Your task to perform on an android device: toggle location history Image 0: 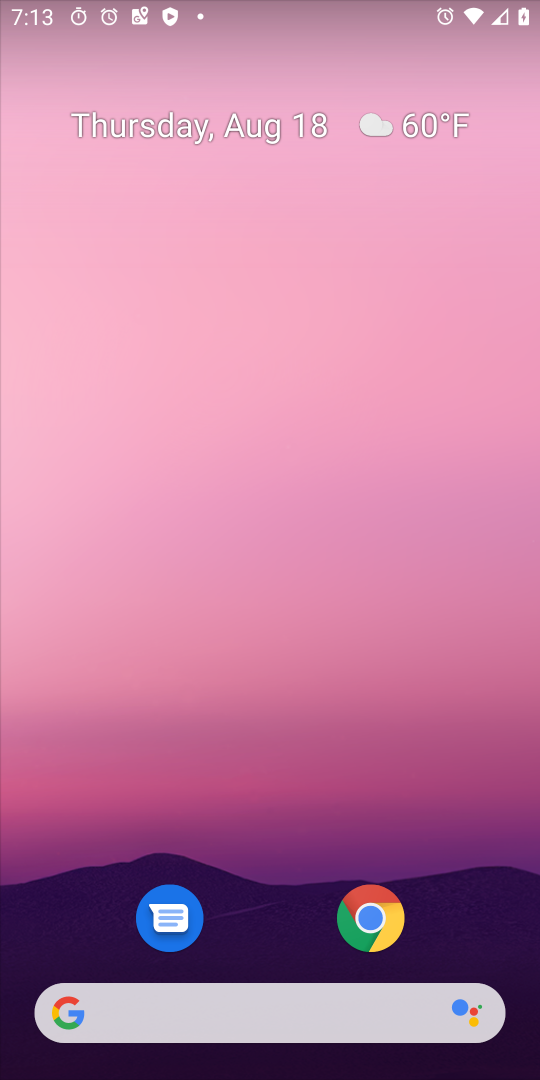
Step 0: drag from (328, 953) to (397, 58)
Your task to perform on an android device: toggle location history Image 1: 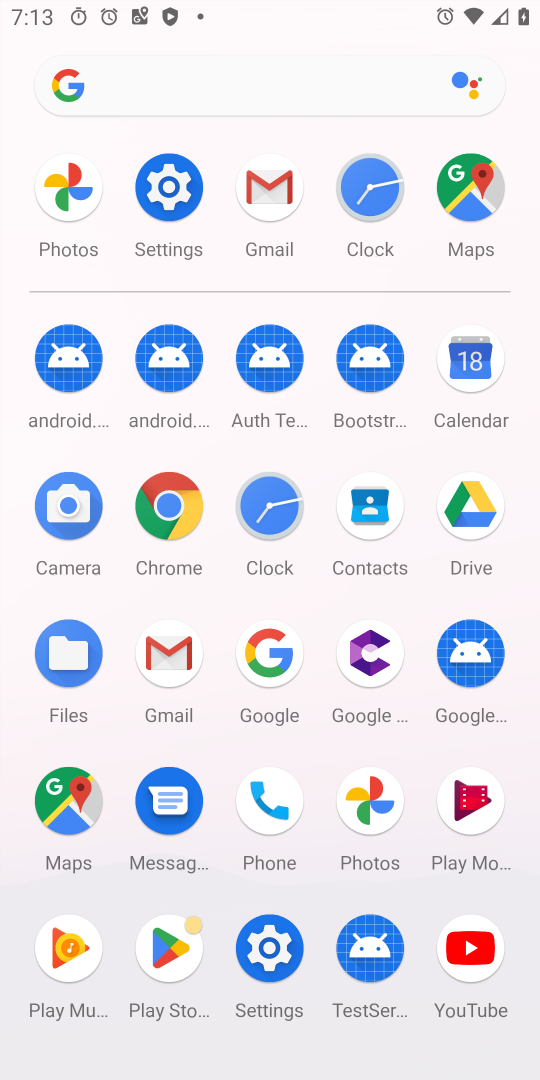
Step 1: click (155, 180)
Your task to perform on an android device: toggle location history Image 2: 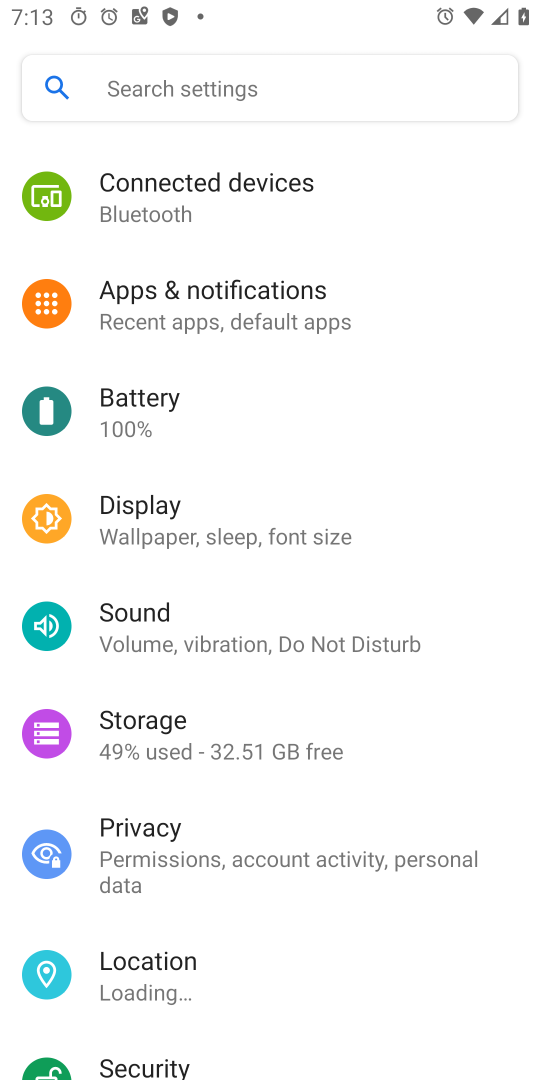
Step 2: click (142, 961)
Your task to perform on an android device: toggle location history Image 3: 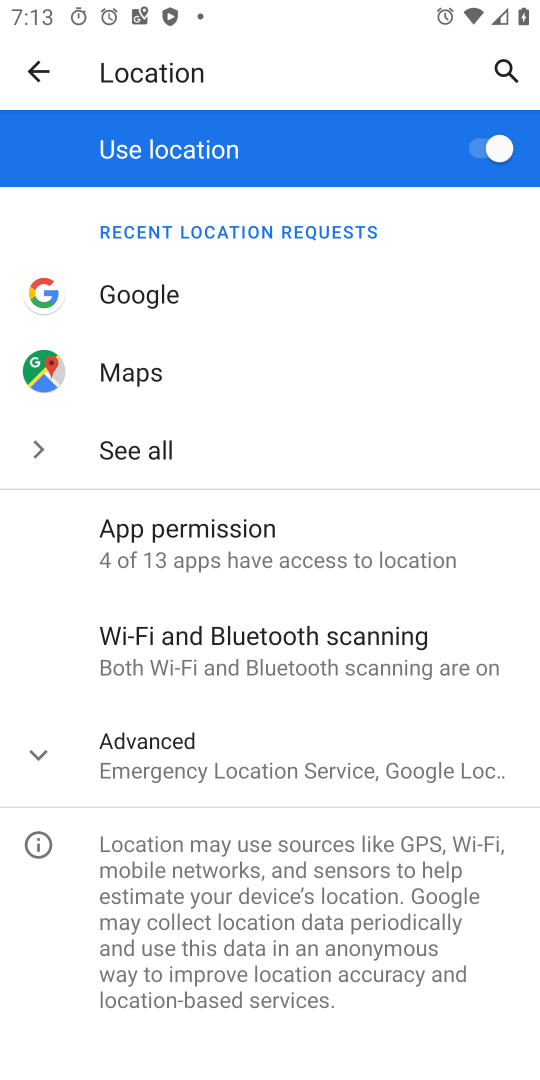
Step 3: click (160, 759)
Your task to perform on an android device: toggle location history Image 4: 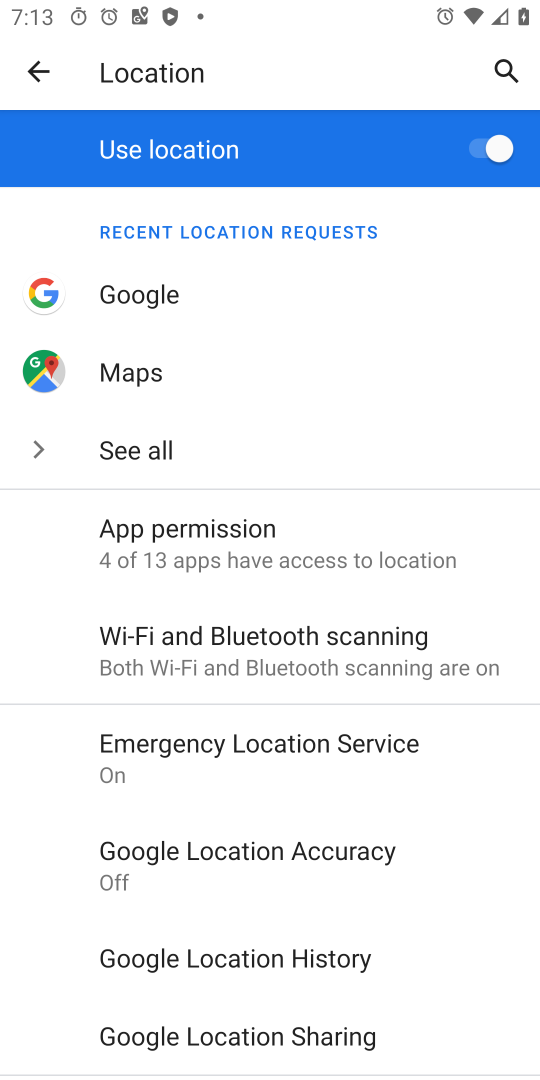
Step 4: click (268, 963)
Your task to perform on an android device: toggle location history Image 5: 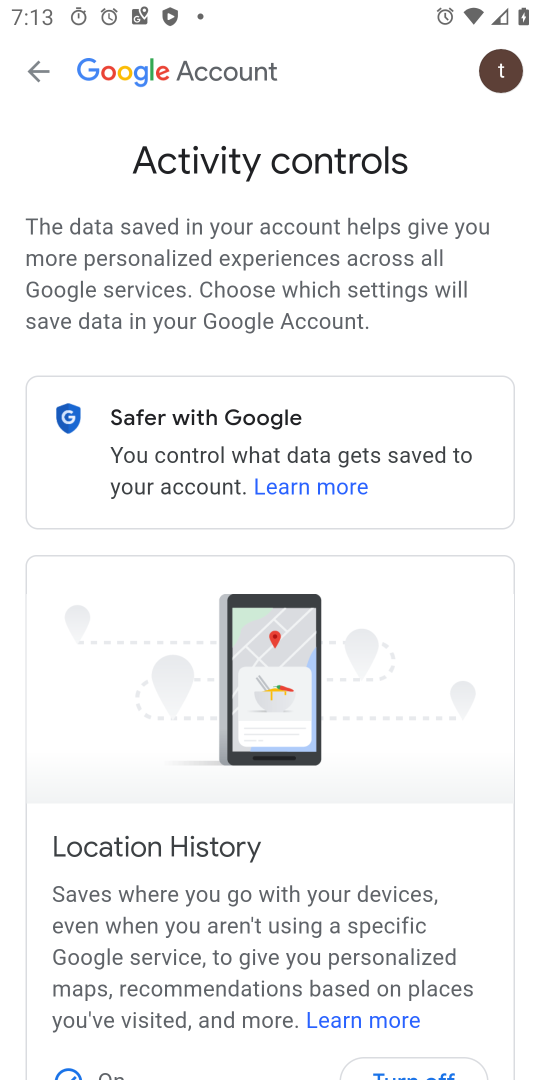
Step 5: drag from (453, 878) to (441, 142)
Your task to perform on an android device: toggle location history Image 6: 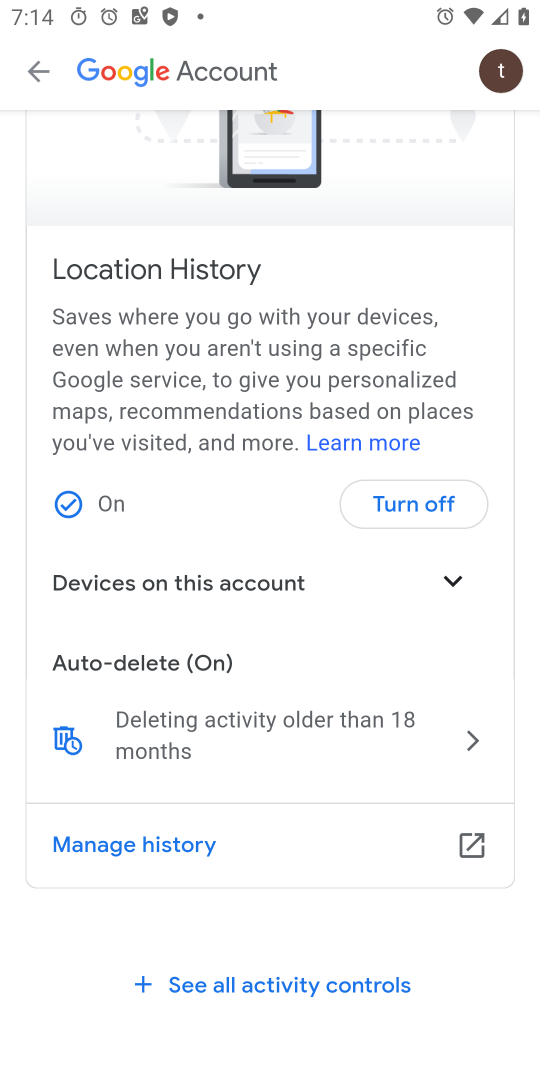
Step 6: click (400, 504)
Your task to perform on an android device: toggle location history Image 7: 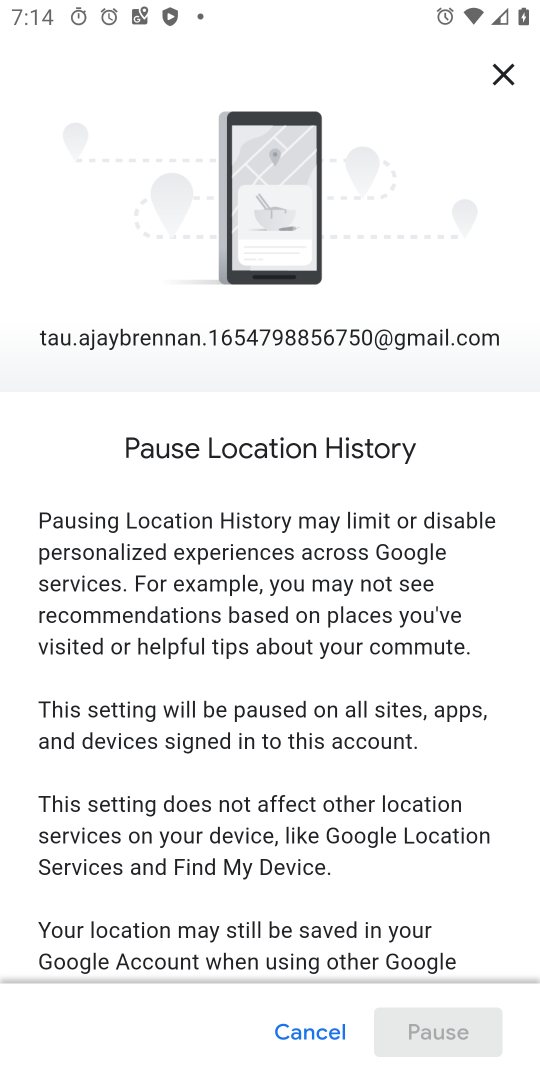
Step 7: drag from (426, 902) to (482, 15)
Your task to perform on an android device: toggle location history Image 8: 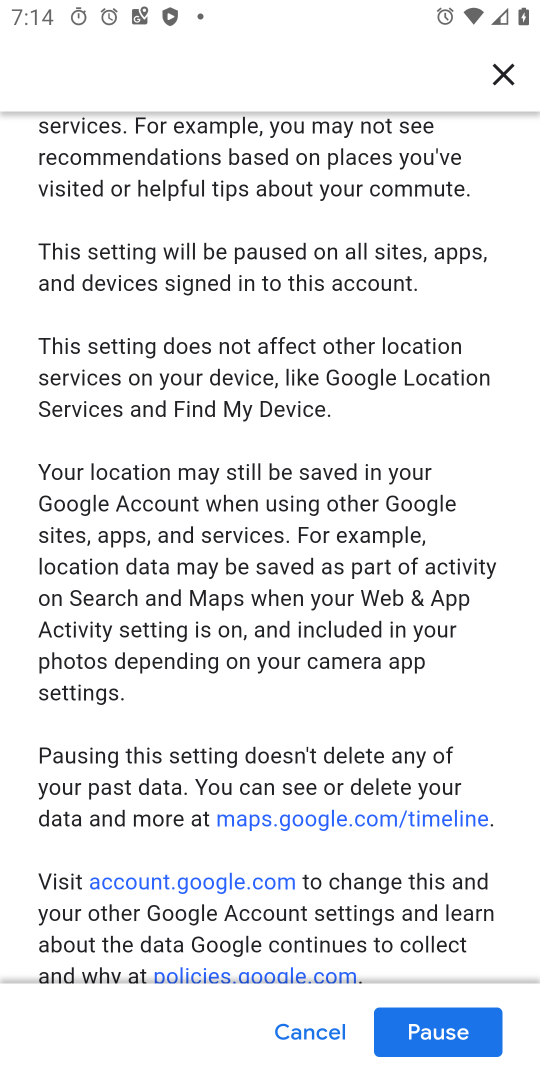
Step 8: click (422, 1031)
Your task to perform on an android device: toggle location history Image 9: 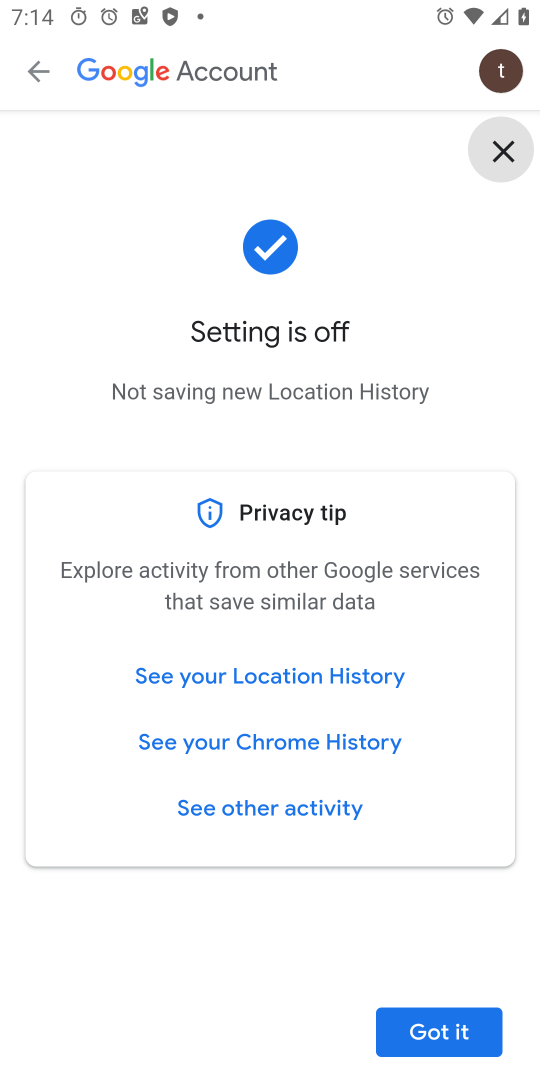
Step 9: click (430, 1043)
Your task to perform on an android device: toggle location history Image 10: 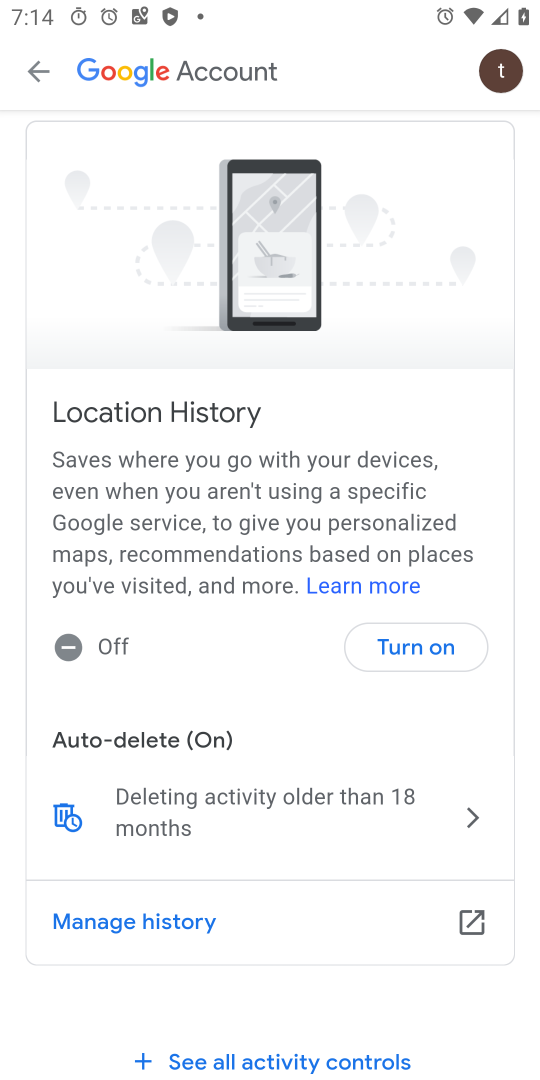
Step 10: task complete